Your task to perform on an android device: Go to location settings Image 0: 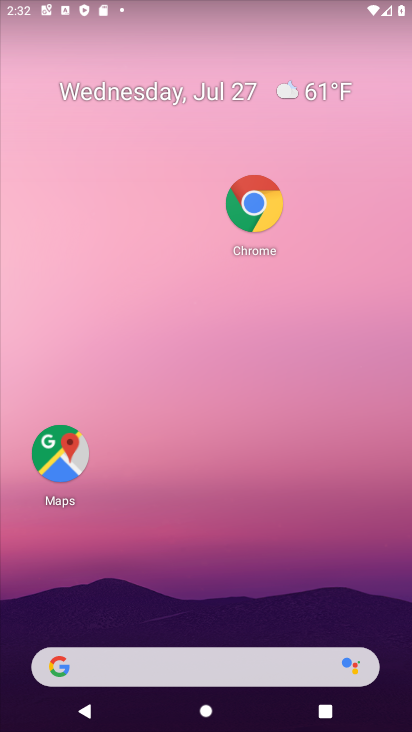
Step 0: drag from (214, 555) to (251, 83)
Your task to perform on an android device: Go to location settings Image 1: 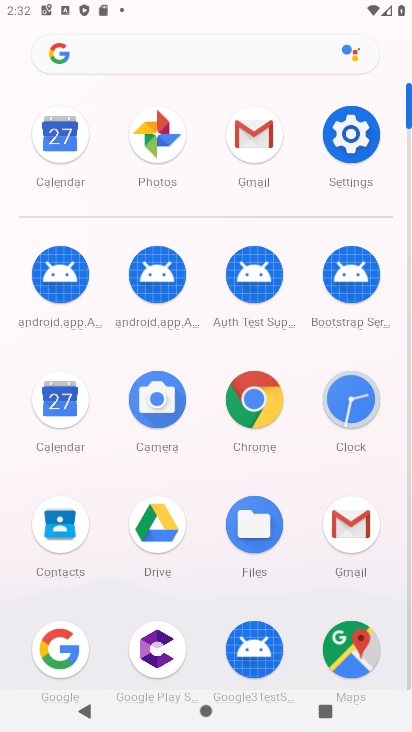
Step 1: click (342, 113)
Your task to perform on an android device: Go to location settings Image 2: 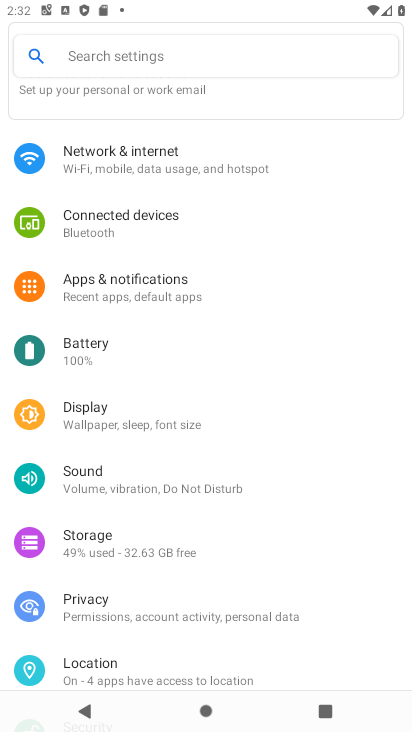
Step 2: click (117, 659)
Your task to perform on an android device: Go to location settings Image 3: 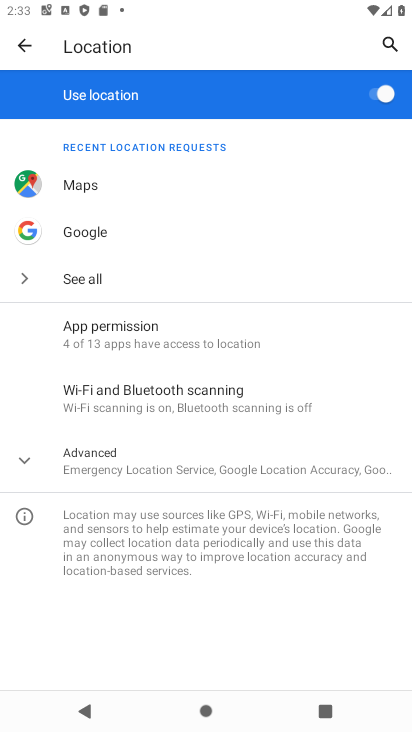
Step 3: task complete